Your task to perform on an android device: turn on location history Image 0: 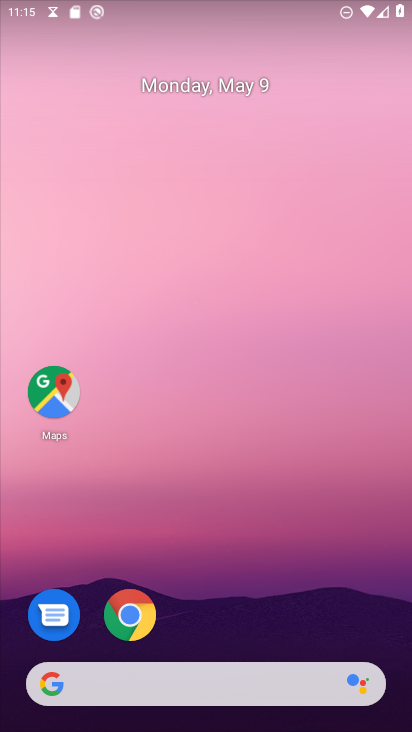
Step 0: drag from (193, 724) to (189, 188)
Your task to perform on an android device: turn on location history Image 1: 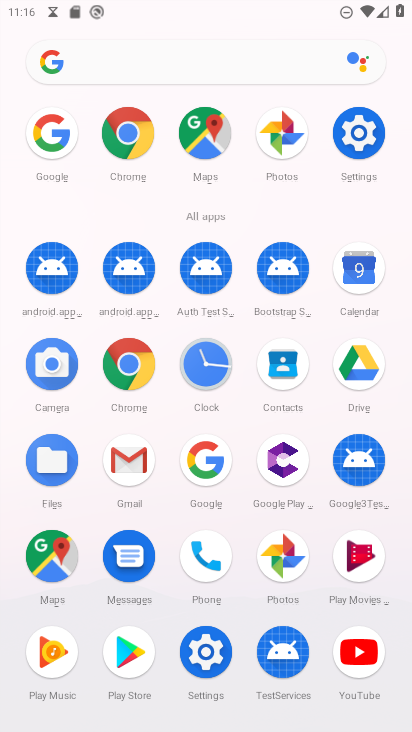
Step 1: click (356, 136)
Your task to perform on an android device: turn on location history Image 2: 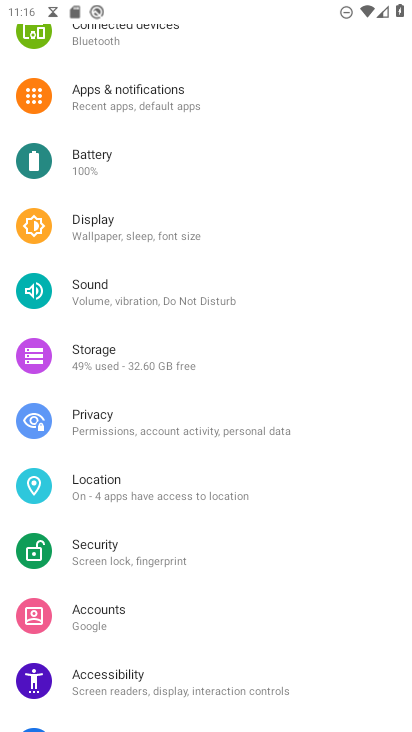
Step 2: click (108, 490)
Your task to perform on an android device: turn on location history Image 3: 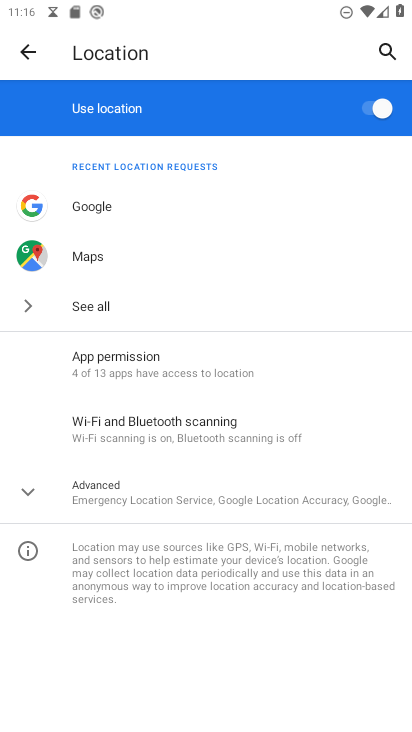
Step 3: click (115, 495)
Your task to perform on an android device: turn on location history Image 4: 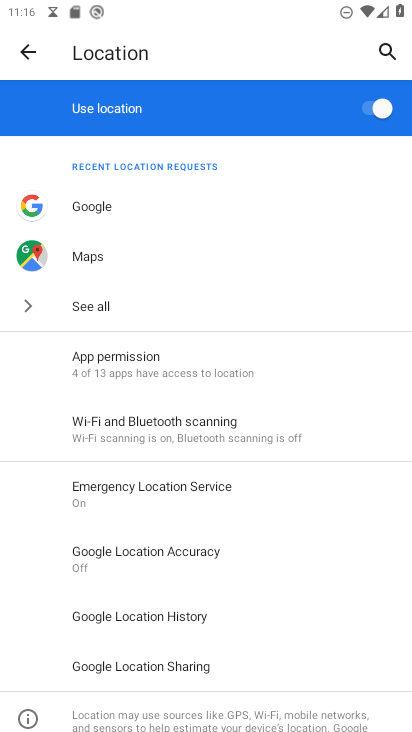
Step 4: click (140, 616)
Your task to perform on an android device: turn on location history Image 5: 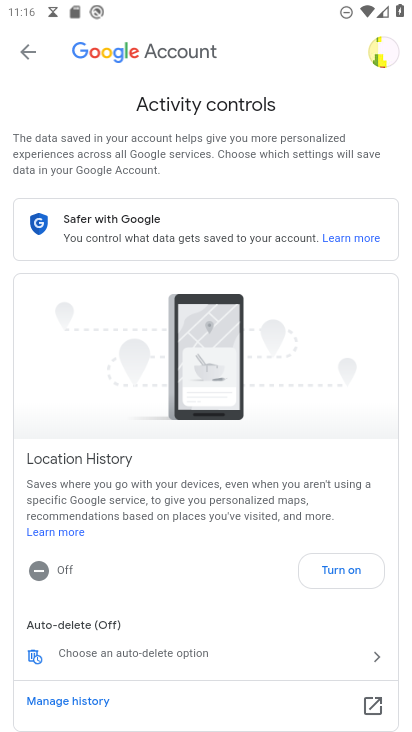
Step 5: click (351, 563)
Your task to perform on an android device: turn on location history Image 6: 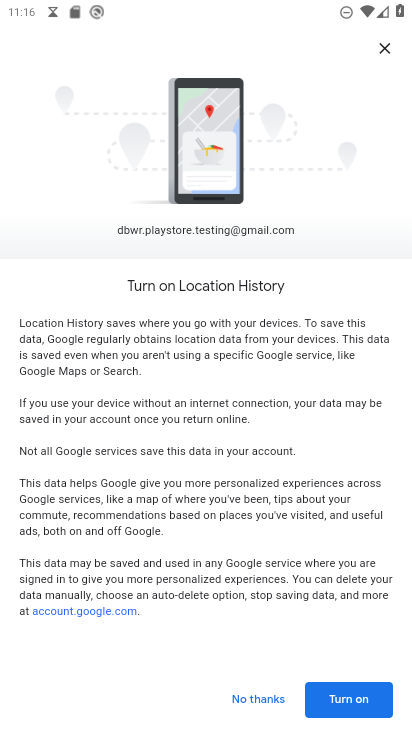
Step 6: drag from (226, 632) to (223, 312)
Your task to perform on an android device: turn on location history Image 7: 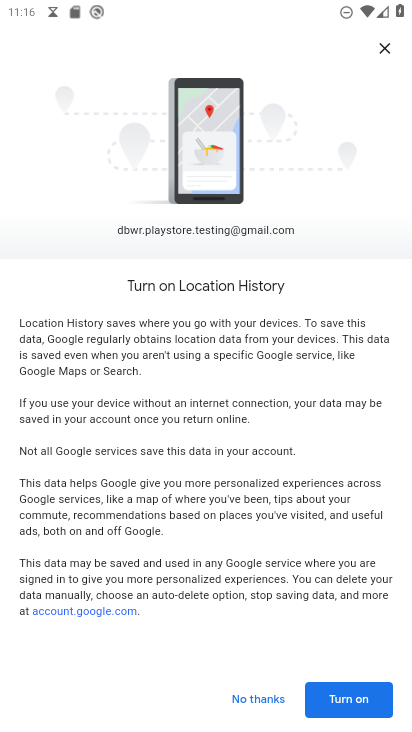
Step 7: click (346, 686)
Your task to perform on an android device: turn on location history Image 8: 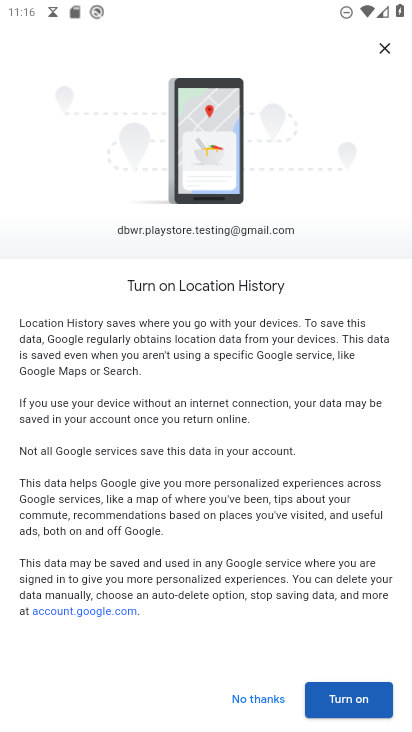
Step 8: click (367, 698)
Your task to perform on an android device: turn on location history Image 9: 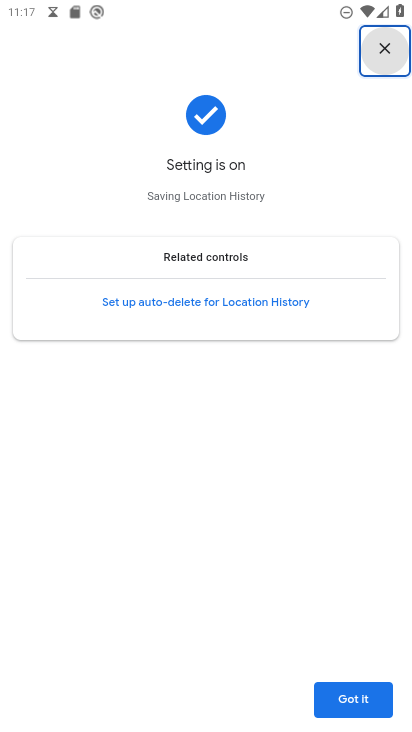
Step 9: task complete